Your task to perform on an android device: Open Youtube and go to "Your channel" Image 0: 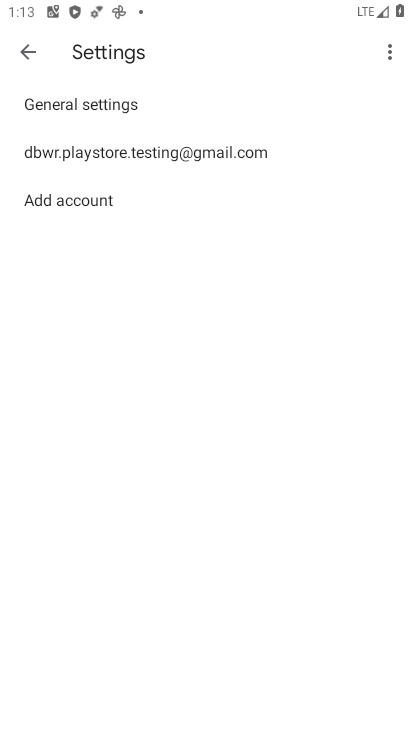
Step 0: press home button
Your task to perform on an android device: Open Youtube and go to "Your channel" Image 1: 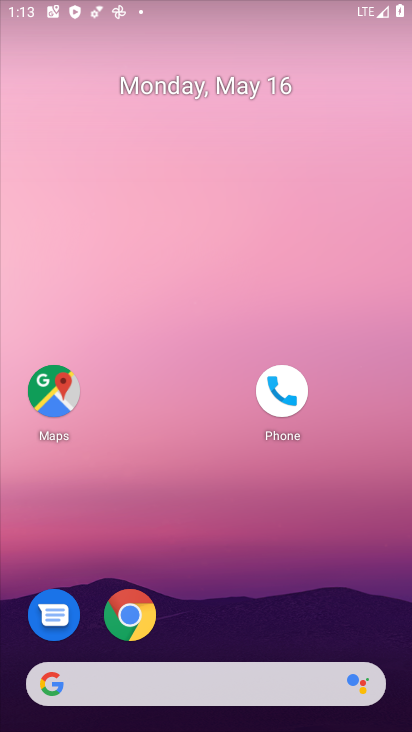
Step 1: drag from (73, 691) to (196, 91)
Your task to perform on an android device: Open Youtube and go to "Your channel" Image 2: 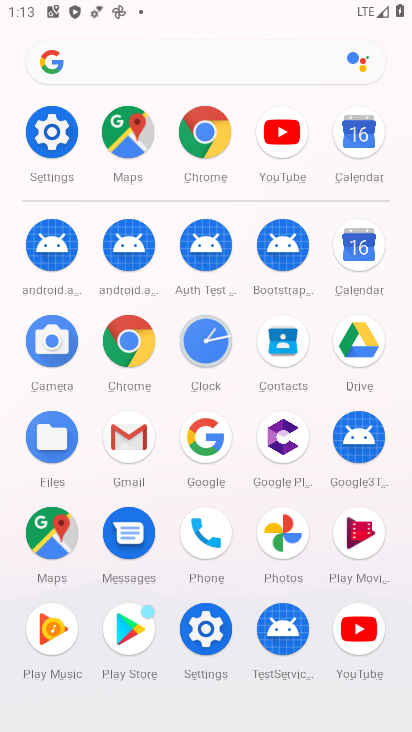
Step 2: click (278, 593)
Your task to perform on an android device: Open Youtube and go to "Your channel" Image 3: 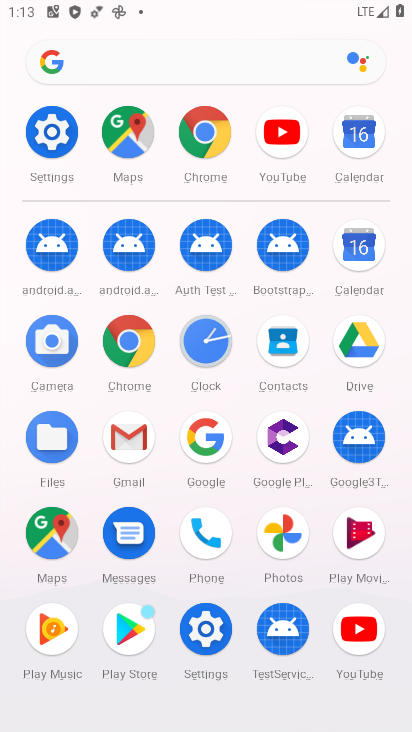
Step 3: click (363, 640)
Your task to perform on an android device: Open Youtube and go to "Your channel" Image 4: 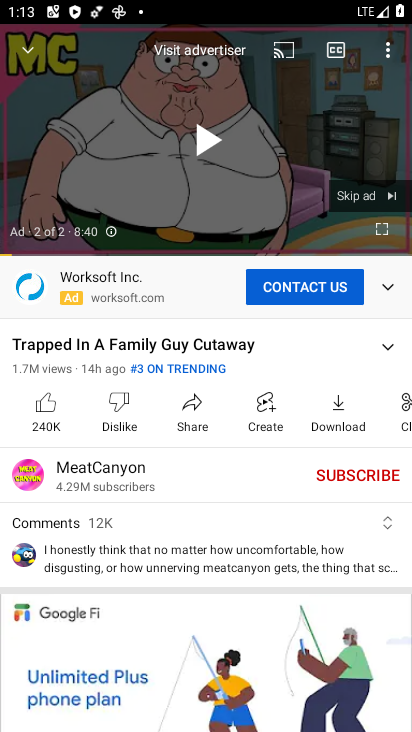
Step 4: drag from (228, 127) to (262, 697)
Your task to perform on an android device: Open Youtube and go to "Your channel" Image 5: 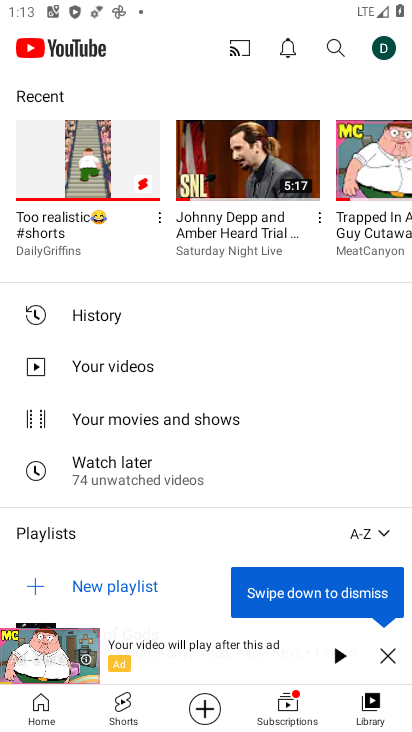
Step 5: click (376, 704)
Your task to perform on an android device: Open Youtube and go to "Your channel" Image 6: 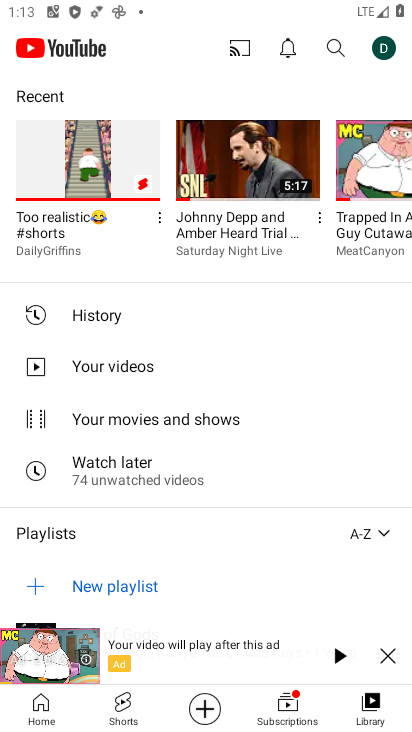
Step 6: drag from (172, 584) to (166, 218)
Your task to perform on an android device: Open Youtube and go to "Your channel" Image 7: 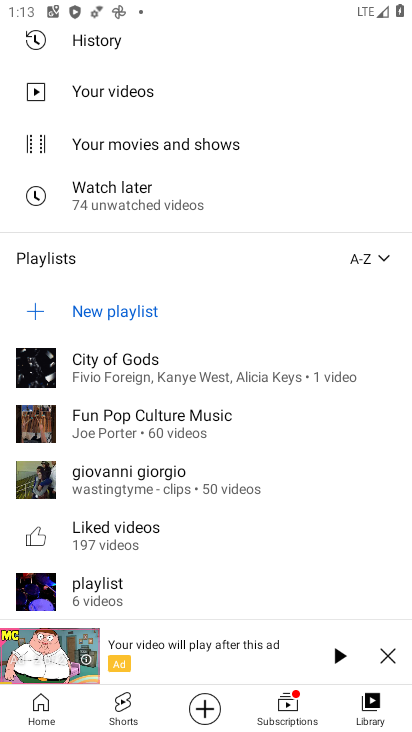
Step 7: drag from (254, 611) to (251, 268)
Your task to perform on an android device: Open Youtube and go to "Your channel" Image 8: 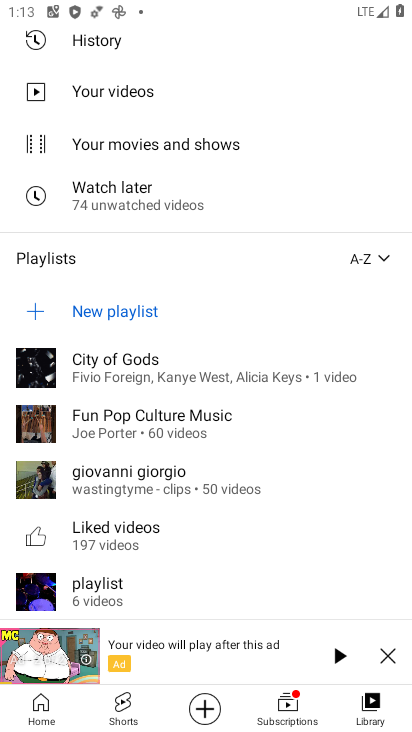
Step 8: drag from (246, 606) to (257, 312)
Your task to perform on an android device: Open Youtube and go to "Your channel" Image 9: 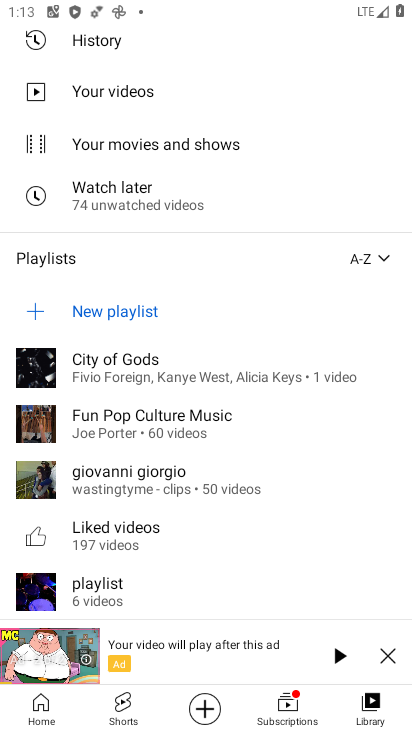
Step 9: drag from (255, 377) to (257, 654)
Your task to perform on an android device: Open Youtube and go to "Your channel" Image 10: 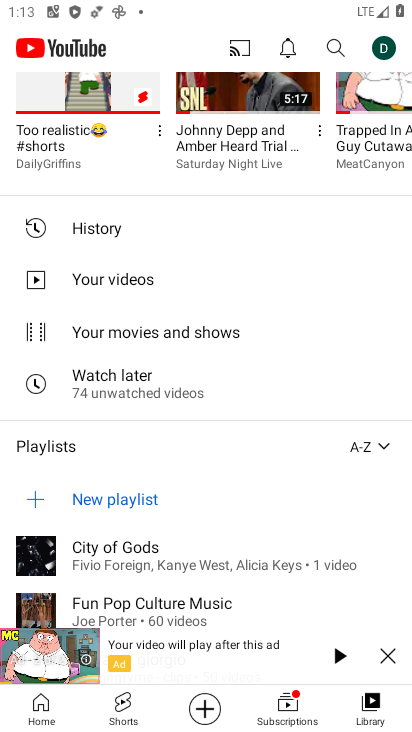
Step 10: drag from (211, 300) to (220, 599)
Your task to perform on an android device: Open Youtube and go to "Your channel" Image 11: 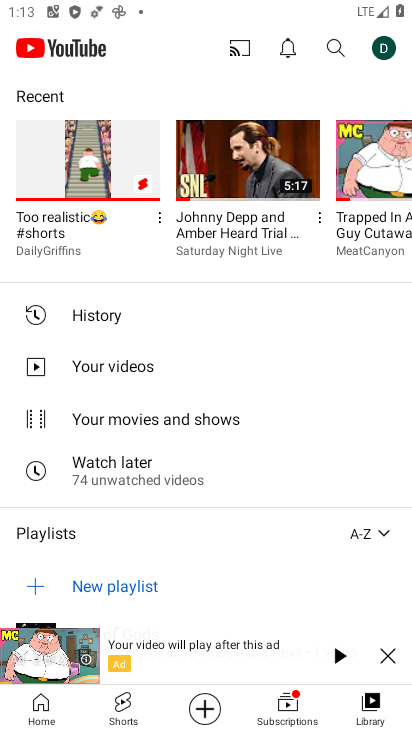
Step 11: click (147, 222)
Your task to perform on an android device: Open Youtube and go to "Your channel" Image 12: 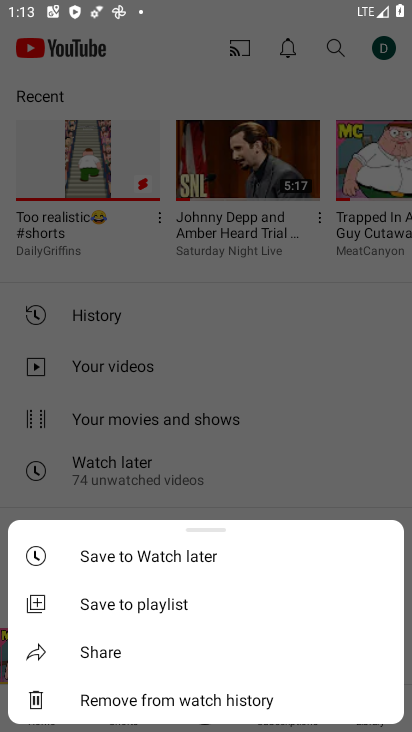
Step 12: click (365, 360)
Your task to perform on an android device: Open Youtube and go to "Your channel" Image 13: 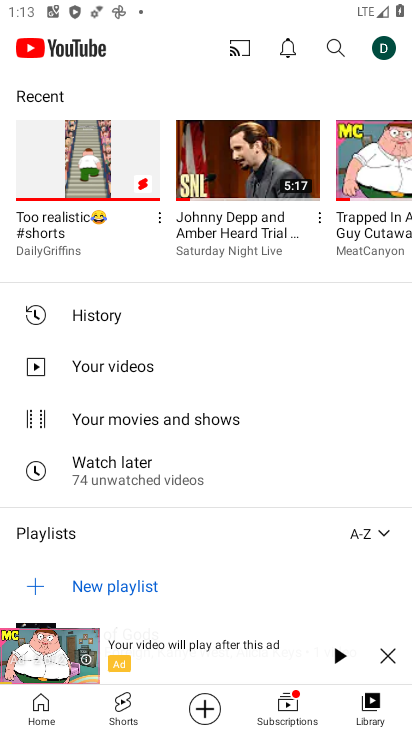
Step 13: click (133, 704)
Your task to perform on an android device: Open Youtube and go to "Your channel" Image 14: 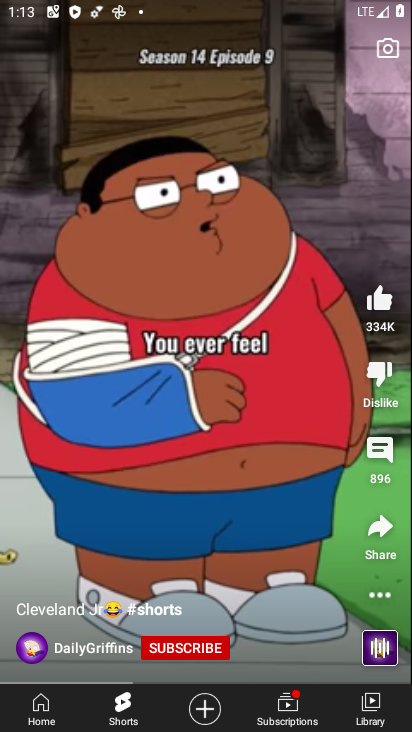
Step 14: task complete